Your task to perform on an android device: Go to calendar. Show me events next week Image 0: 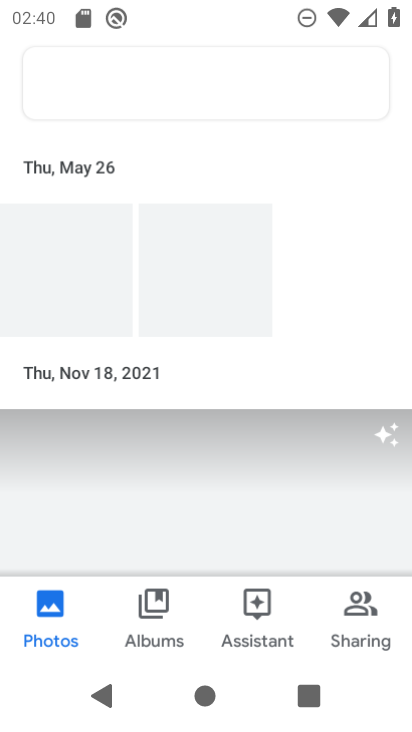
Step 0: drag from (260, 563) to (303, 232)
Your task to perform on an android device: Go to calendar. Show me events next week Image 1: 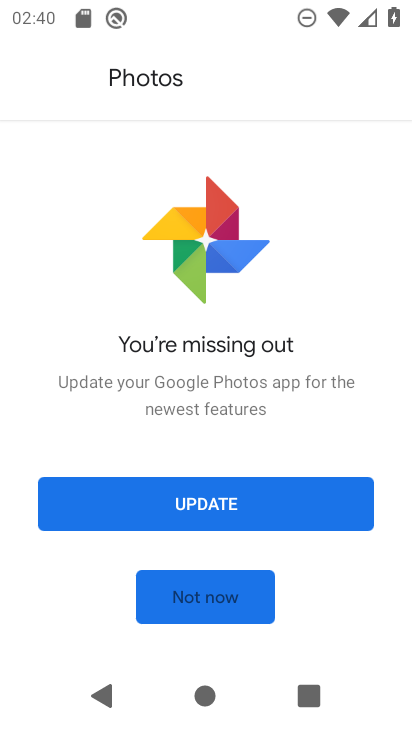
Step 1: press home button
Your task to perform on an android device: Go to calendar. Show me events next week Image 2: 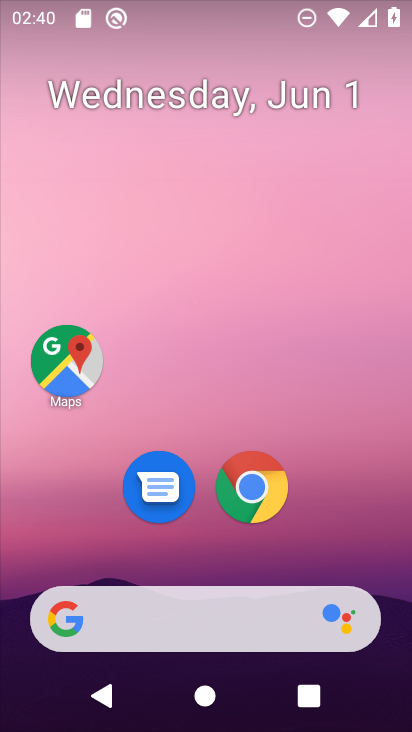
Step 2: drag from (299, 534) to (295, 314)
Your task to perform on an android device: Go to calendar. Show me events next week Image 3: 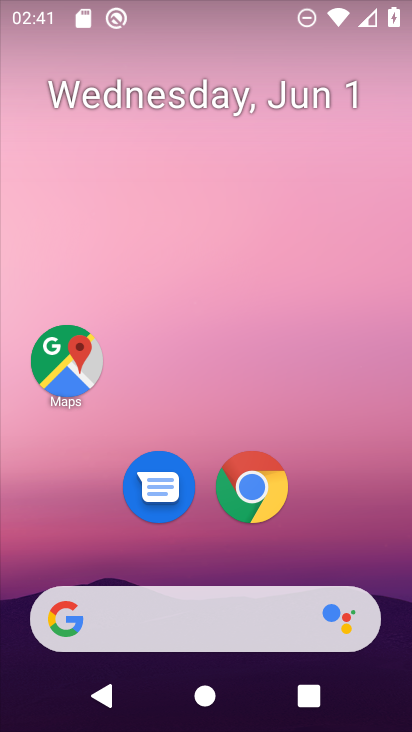
Step 3: drag from (318, 567) to (334, 139)
Your task to perform on an android device: Go to calendar. Show me events next week Image 4: 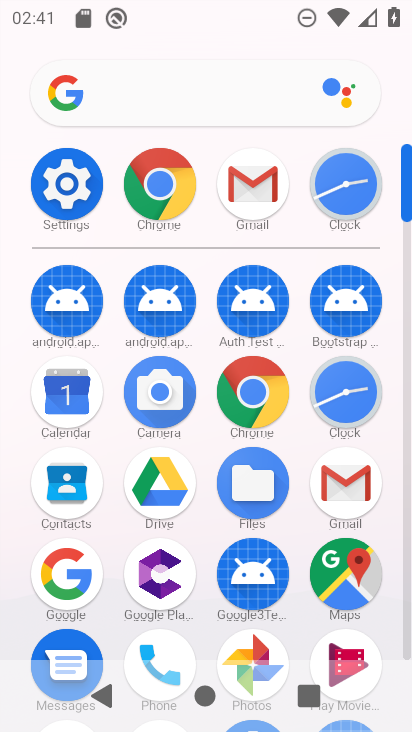
Step 4: click (54, 386)
Your task to perform on an android device: Go to calendar. Show me events next week Image 5: 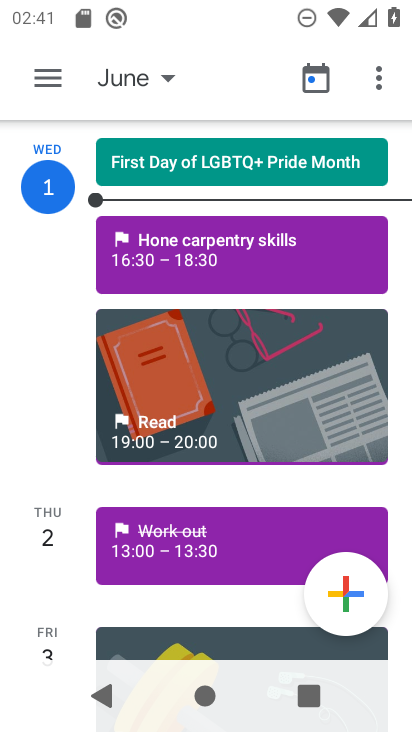
Step 5: click (42, 67)
Your task to perform on an android device: Go to calendar. Show me events next week Image 6: 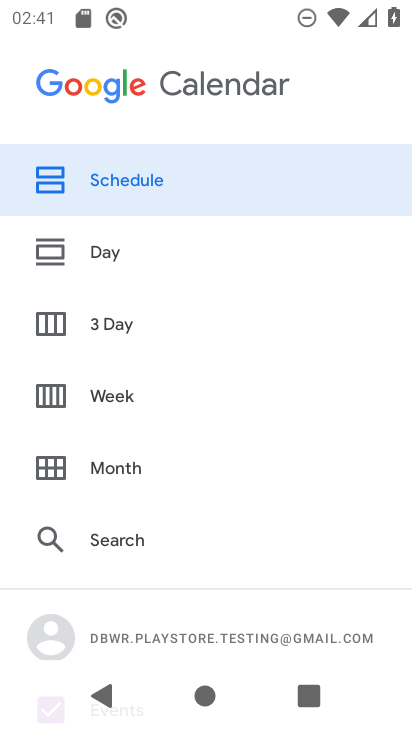
Step 6: click (164, 466)
Your task to perform on an android device: Go to calendar. Show me events next week Image 7: 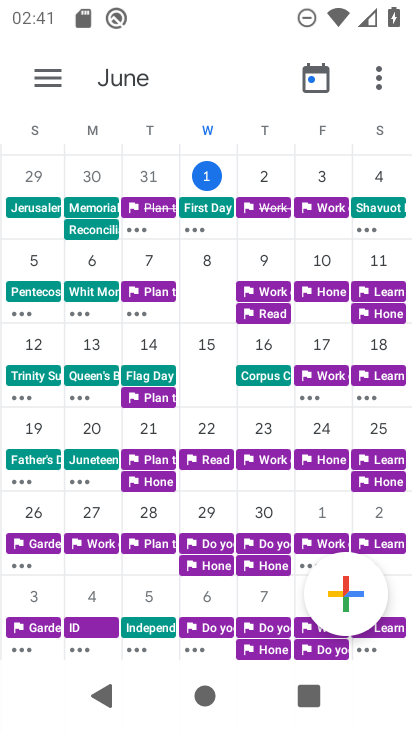
Step 7: click (260, 181)
Your task to perform on an android device: Go to calendar. Show me events next week Image 8: 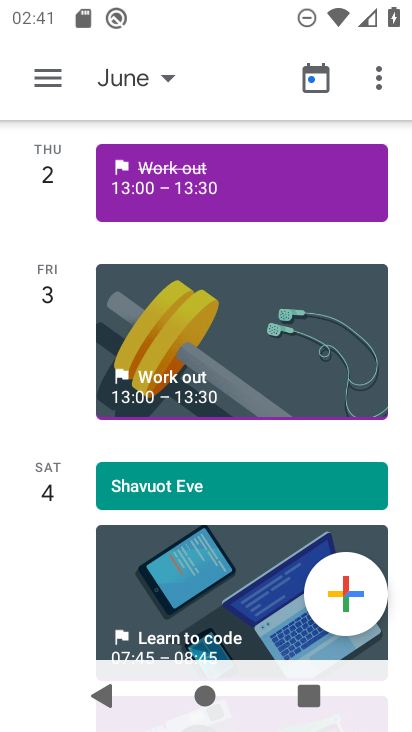
Step 8: task complete